Your task to perform on an android device: turn off improve location accuracy Image 0: 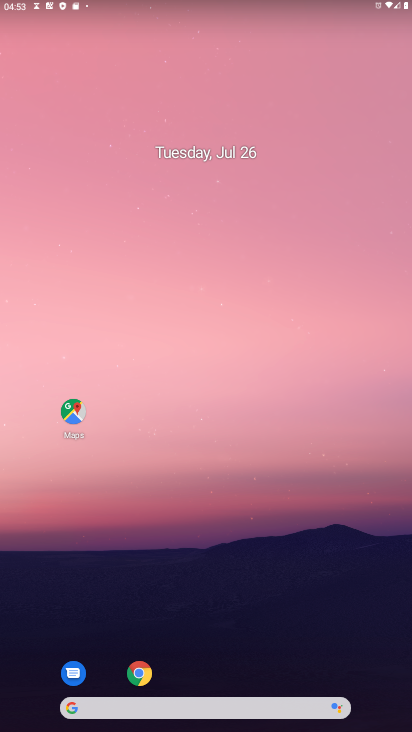
Step 0: drag from (190, 707) to (214, 86)
Your task to perform on an android device: turn off improve location accuracy Image 1: 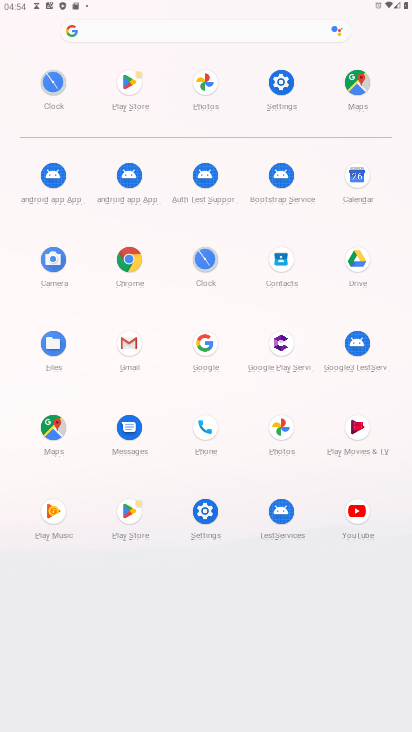
Step 1: click (206, 512)
Your task to perform on an android device: turn off improve location accuracy Image 2: 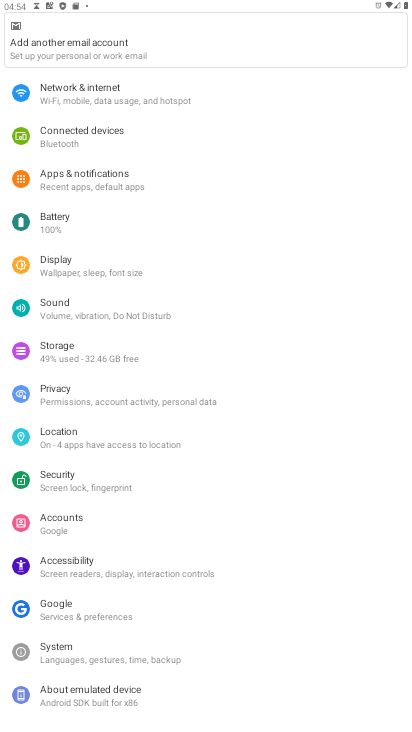
Step 2: click (109, 441)
Your task to perform on an android device: turn off improve location accuracy Image 3: 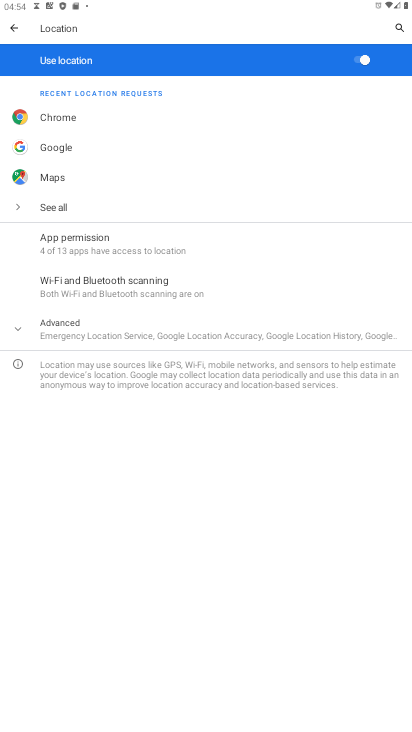
Step 3: click (144, 337)
Your task to perform on an android device: turn off improve location accuracy Image 4: 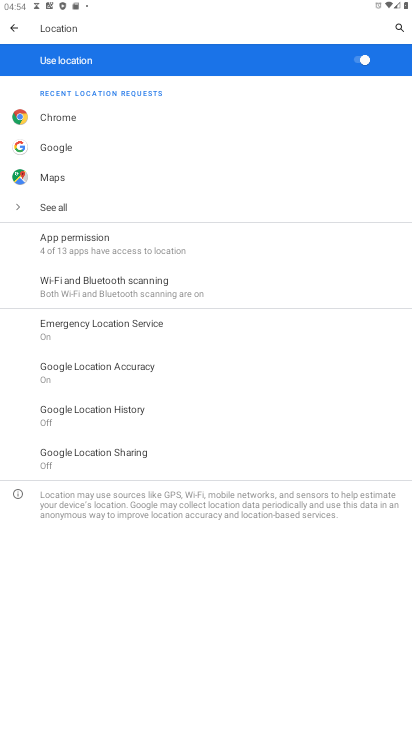
Step 4: click (143, 371)
Your task to perform on an android device: turn off improve location accuracy Image 5: 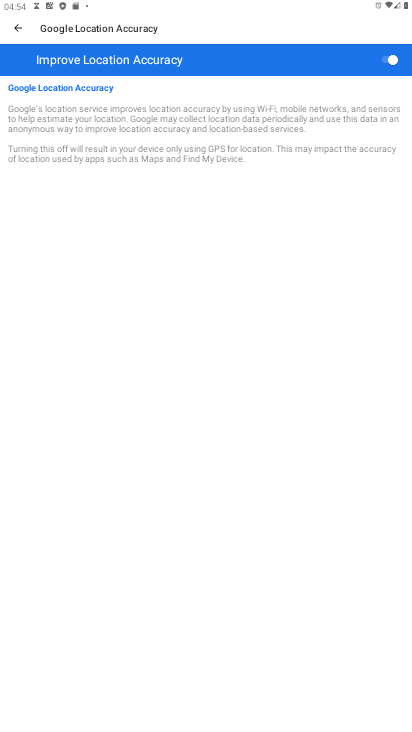
Step 5: click (389, 59)
Your task to perform on an android device: turn off improve location accuracy Image 6: 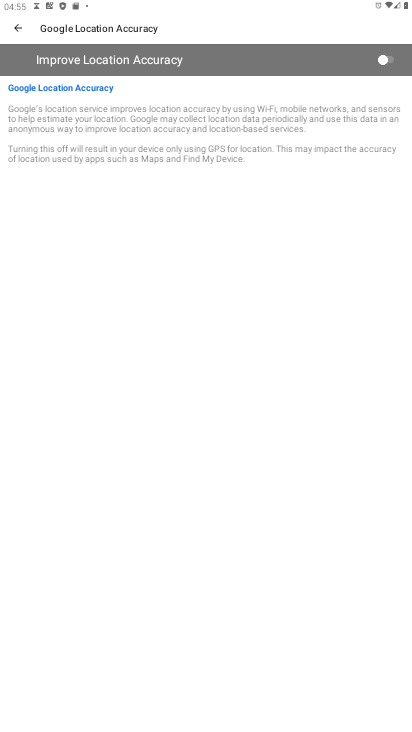
Step 6: task complete